Your task to perform on an android device: Open internet settings Image 0: 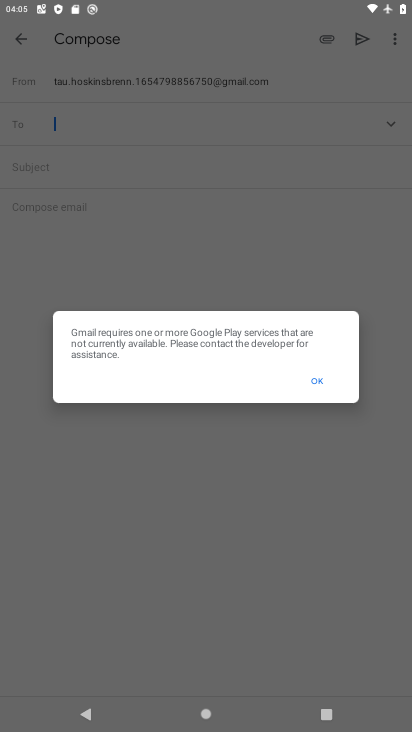
Step 0: click (343, 397)
Your task to perform on an android device: Open internet settings Image 1: 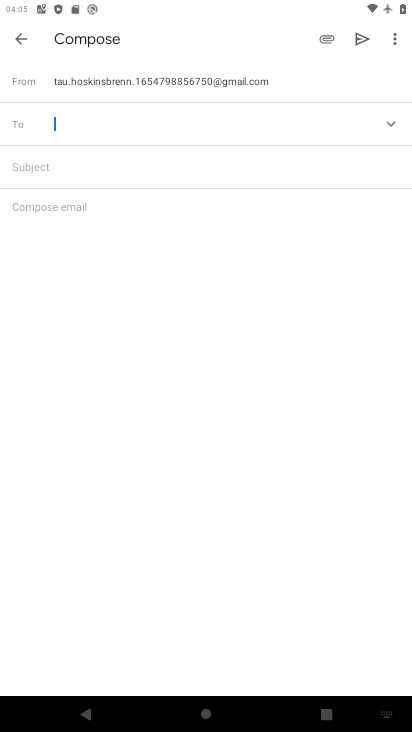
Step 1: press home button
Your task to perform on an android device: Open internet settings Image 2: 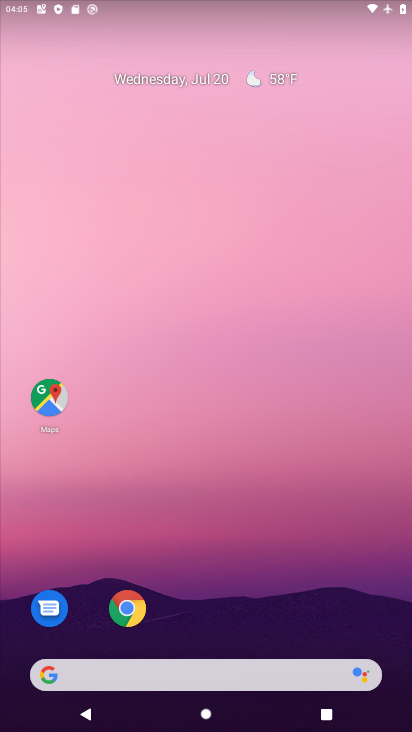
Step 2: click (170, 669)
Your task to perform on an android device: Open internet settings Image 3: 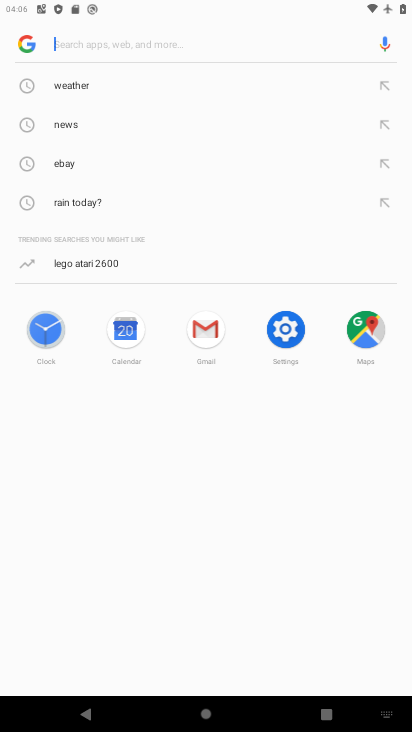
Step 3: press home button
Your task to perform on an android device: Open internet settings Image 4: 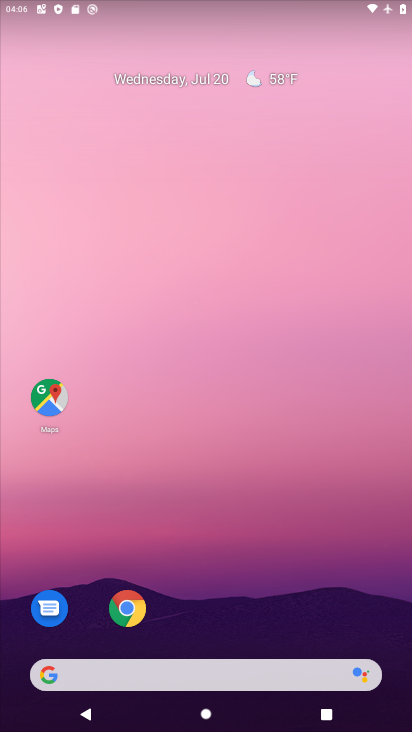
Step 4: drag from (230, 611) to (192, 110)
Your task to perform on an android device: Open internet settings Image 5: 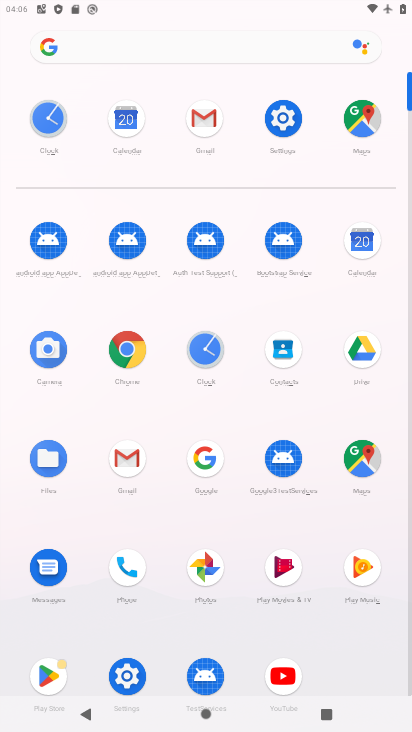
Step 5: click (276, 112)
Your task to perform on an android device: Open internet settings Image 6: 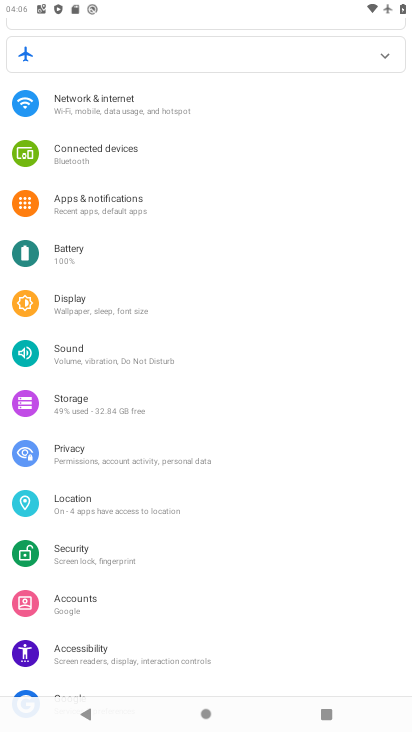
Step 6: click (175, 105)
Your task to perform on an android device: Open internet settings Image 7: 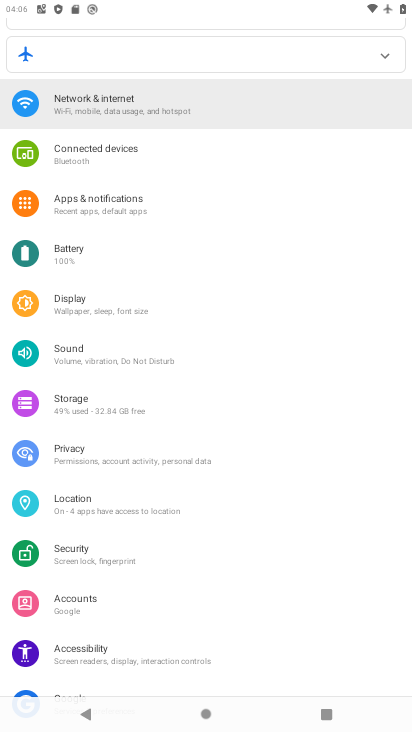
Step 7: task complete